Your task to perform on an android device: Show me popular videos on Youtube Image 0: 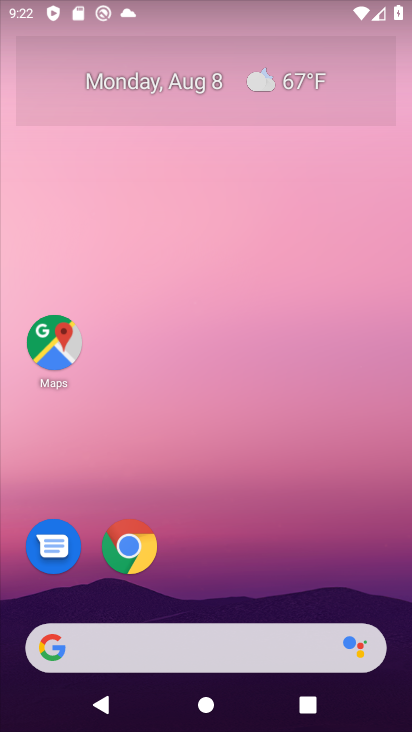
Step 0: drag from (311, 426) to (319, 125)
Your task to perform on an android device: Show me popular videos on Youtube Image 1: 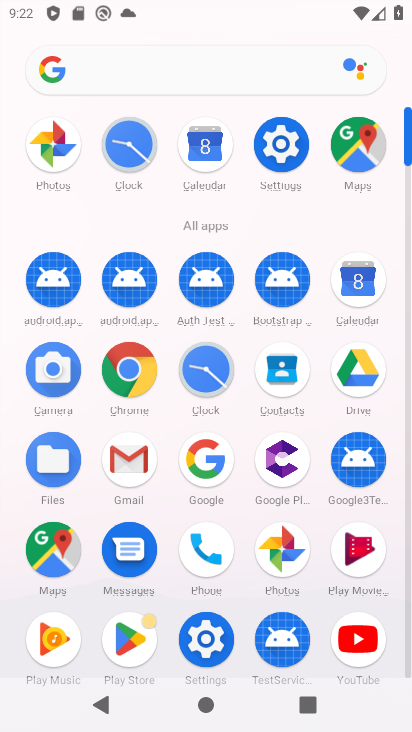
Step 1: click (355, 652)
Your task to perform on an android device: Show me popular videos on Youtube Image 2: 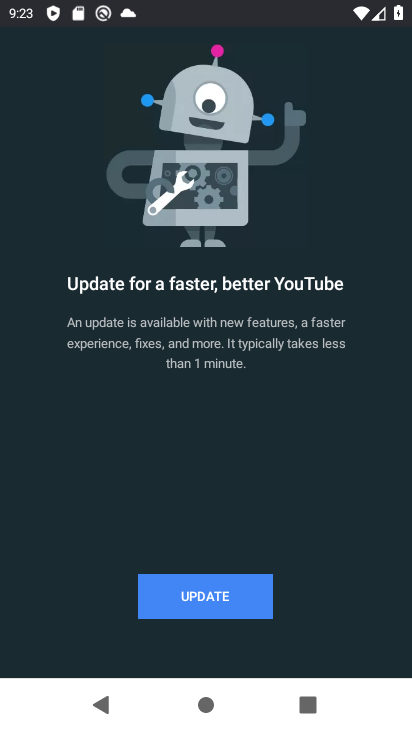
Step 2: press home button
Your task to perform on an android device: Show me popular videos on Youtube Image 3: 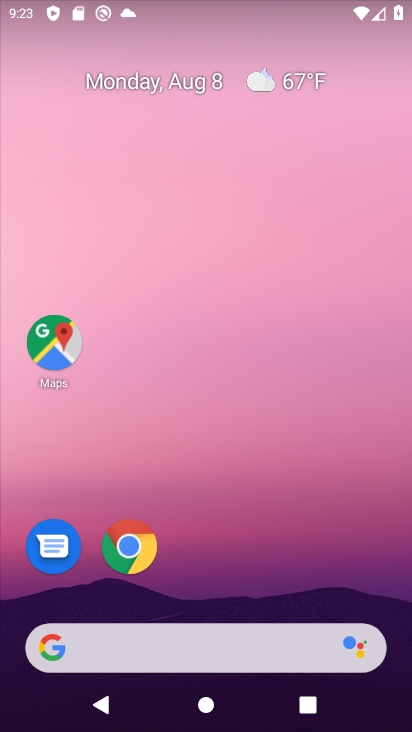
Step 3: drag from (231, 517) to (247, 221)
Your task to perform on an android device: Show me popular videos on Youtube Image 4: 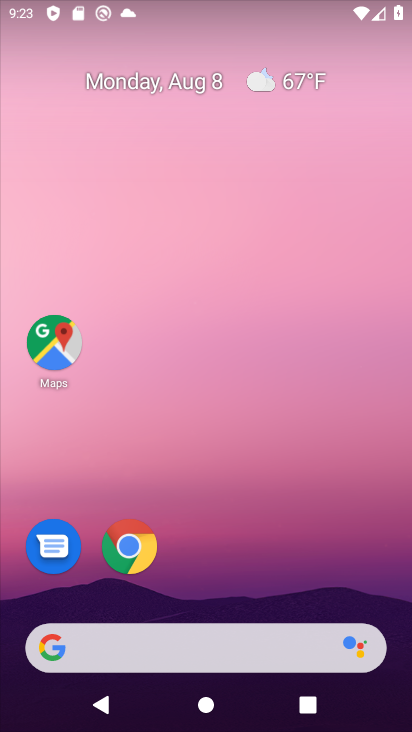
Step 4: drag from (251, 568) to (314, 186)
Your task to perform on an android device: Show me popular videos on Youtube Image 5: 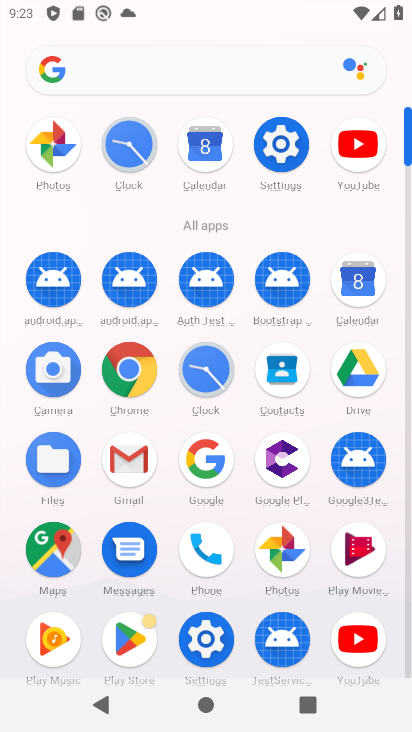
Step 5: click (358, 140)
Your task to perform on an android device: Show me popular videos on Youtube Image 6: 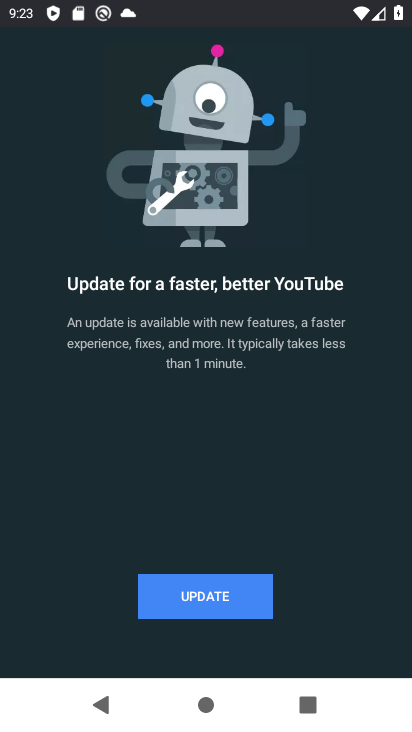
Step 6: task complete